Your task to perform on an android device: turn notification dots on Image 0: 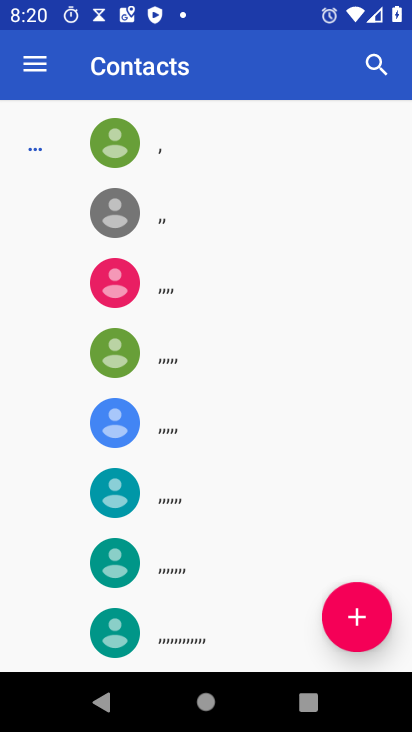
Step 0: press home button
Your task to perform on an android device: turn notification dots on Image 1: 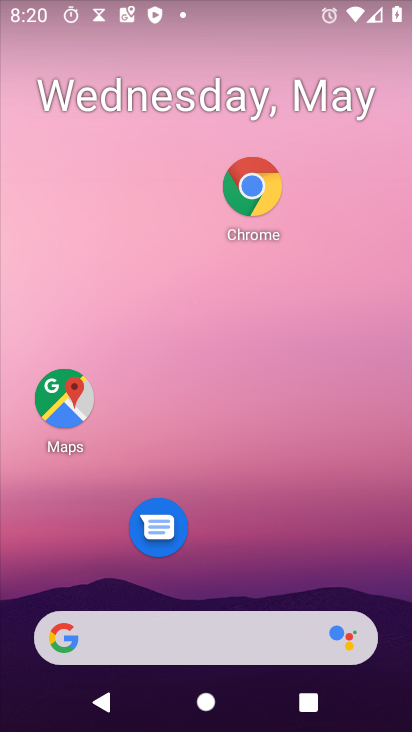
Step 1: drag from (311, 523) to (374, 81)
Your task to perform on an android device: turn notification dots on Image 2: 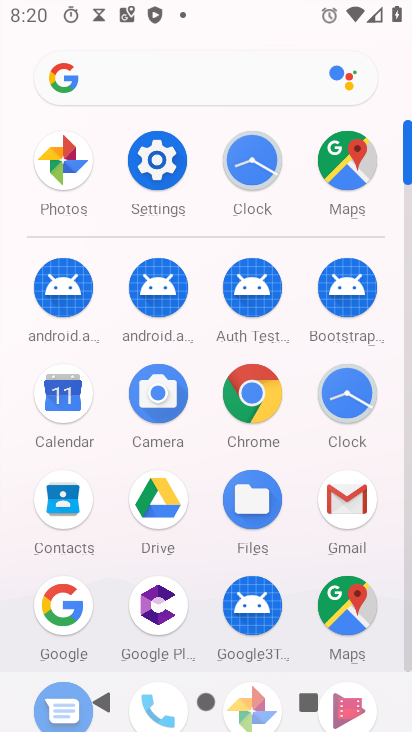
Step 2: click (153, 164)
Your task to perform on an android device: turn notification dots on Image 3: 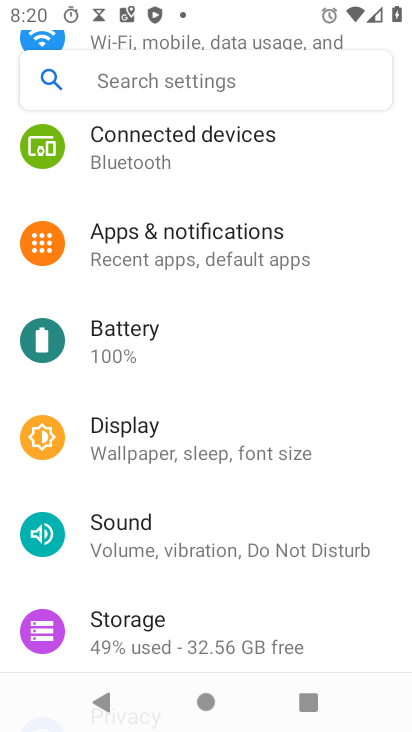
Step 3: click (188, 239)
Your task to perform on an android device: turn notification dots on Image 4: 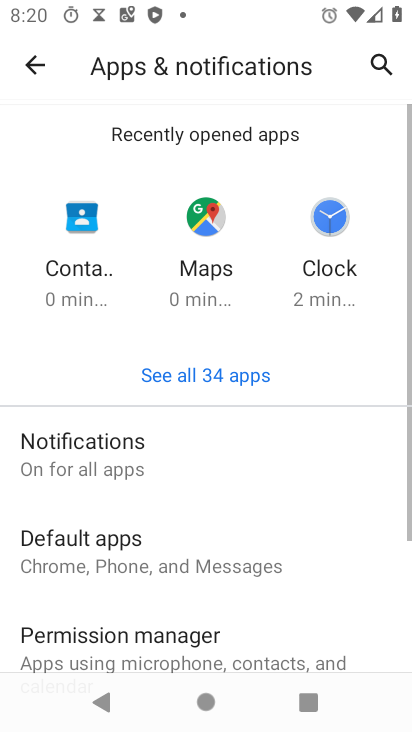
Step 4: click (43, 459)
Your task to perform on an android device: turn notification dots on Image 5: 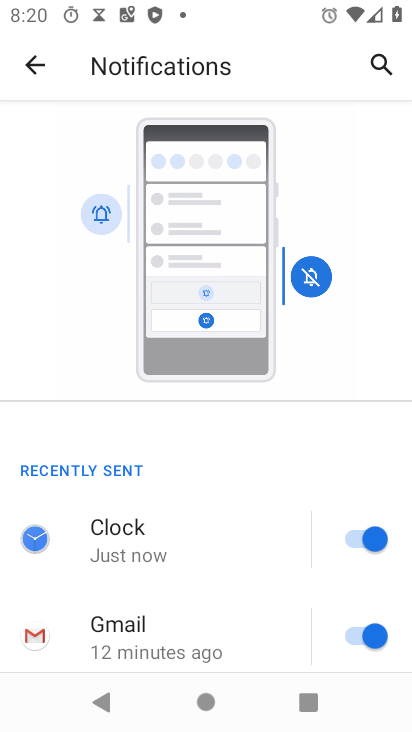
Step 5: drag from (204, 591) to (284, 155)
Your task to perform on an android device: turn notification dots on Image 6: 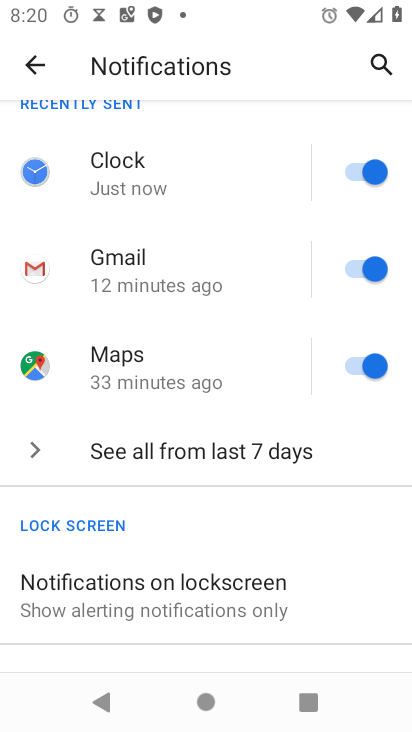
Step 6: drag from (320, 633) to (350, 162)
Your task to perform on an android device: turn notification dots on Image 7: 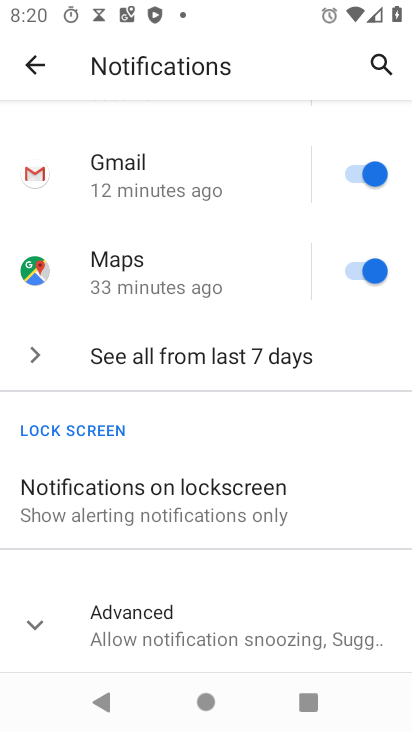
Step 7: click (153, 626)
Your task to perform on an android device: turn notification dots on Image 8: 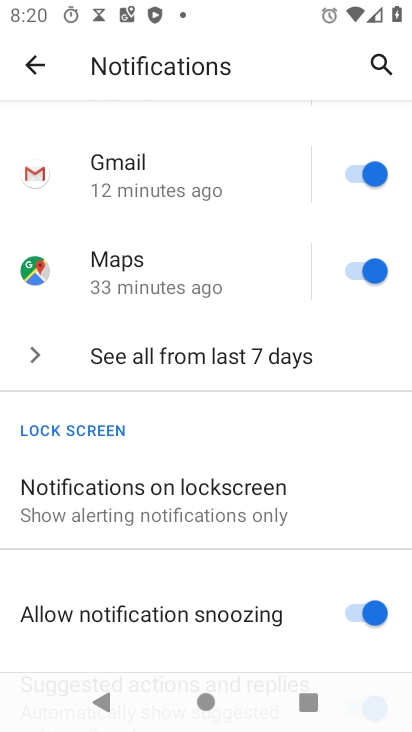
Step 8: drag from (279, 638) to (317, 267)
Your task to perform on an android device: turn notification dots on Image 9: 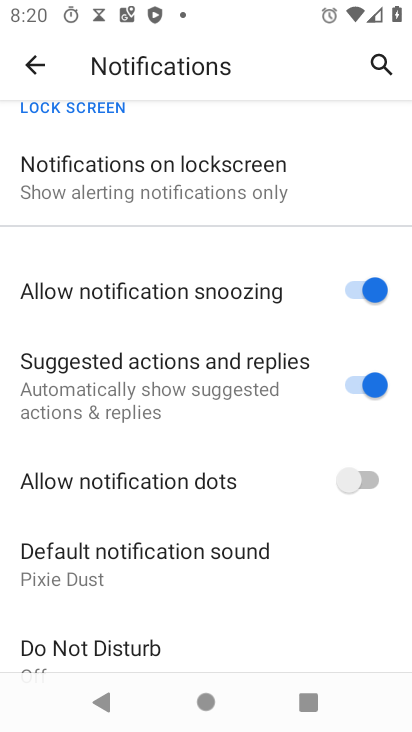
Step 9: click (358, 473)
Your task to perform on an android device: turn notification dots on Image 10: 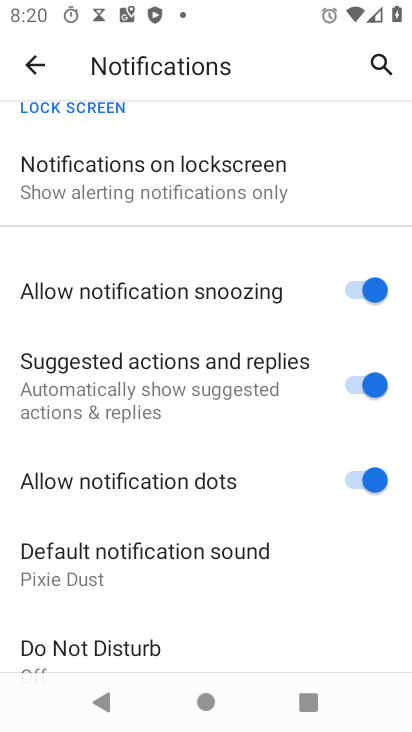
Step 10: task complete